Your task to perform on an android device: Open Google Image 0: 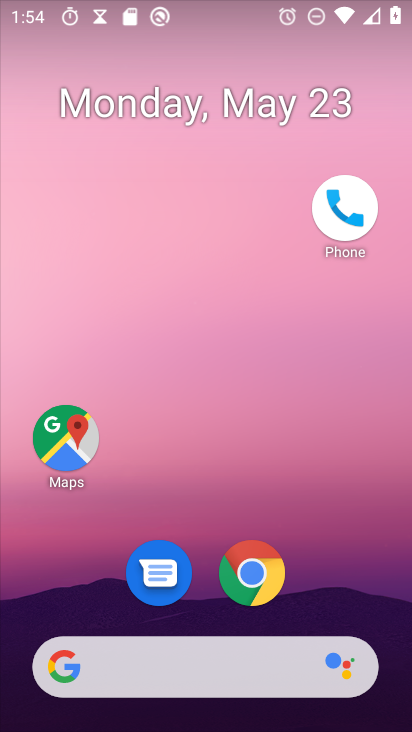
Step 0: drag from (198, 661) to (293, 49)
Your task to perform on an android device: Open Google Image 1: 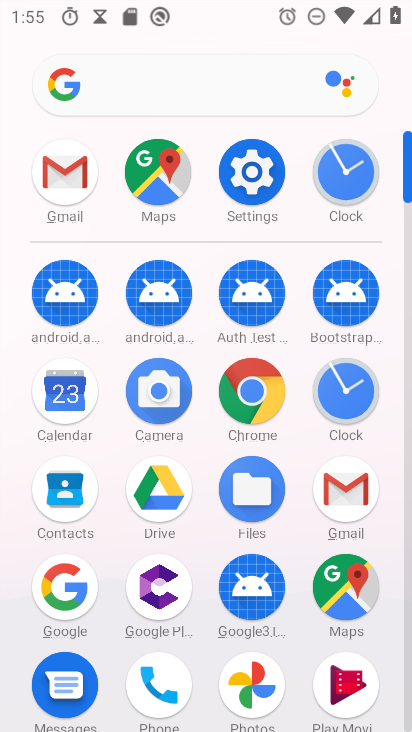
Step 1: click (83, 590)
Your task to perform on an android device: Open Google Image 2: 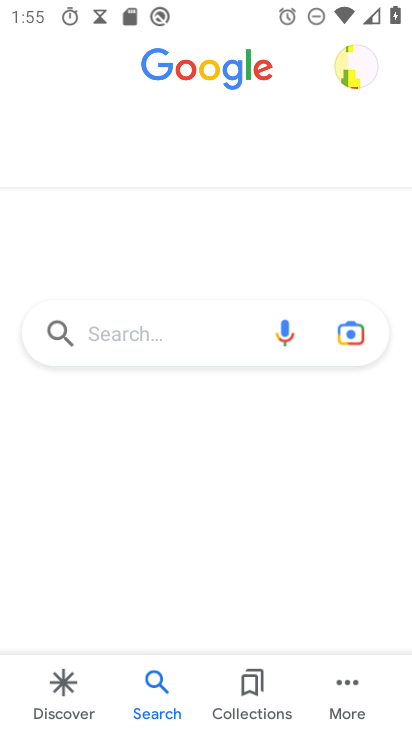
Step 2: task complete